Your task to perform on an android device: Do I have any events tomorrow? Image 0: 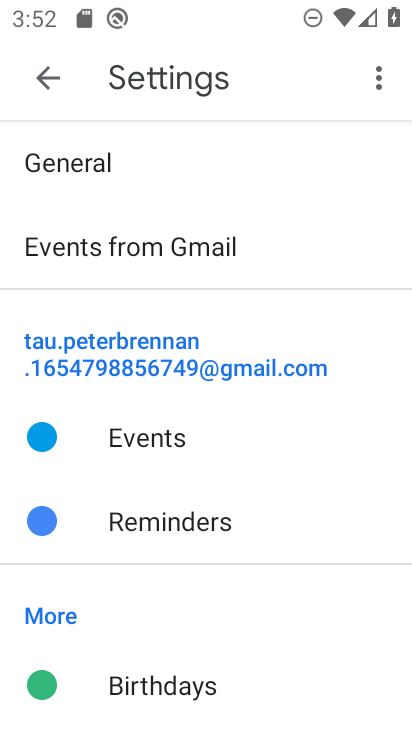
Step 0: press back button
Your task to perform on an android device: Do I have any events tomorrow? Image 1: 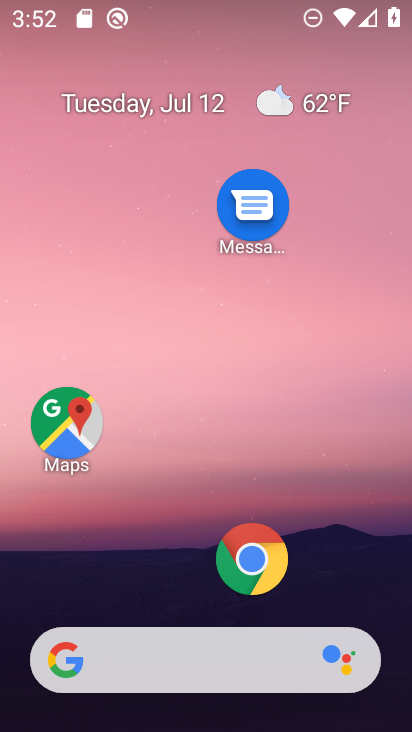
Step 1: drag from (155, 529) to (276, 11)
Your task to perform on an android device: Do I have any events tomorrow? Image 2: 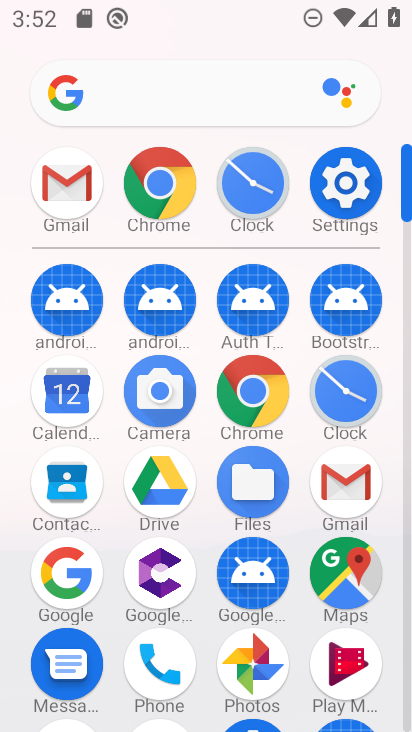
Step 2: click (42, 397)
Your task to perform on an android device: Do I have any events tomorrow? Image 3: 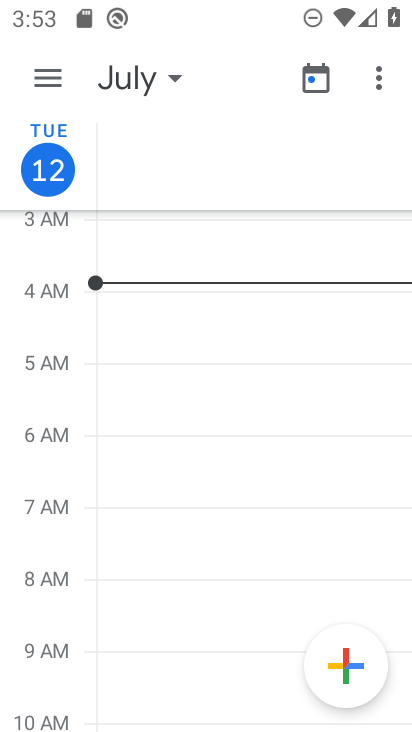
Step 3: click (47, 72)
Your task to perform on an android device: Do I have any events tomorrow? Image 4: 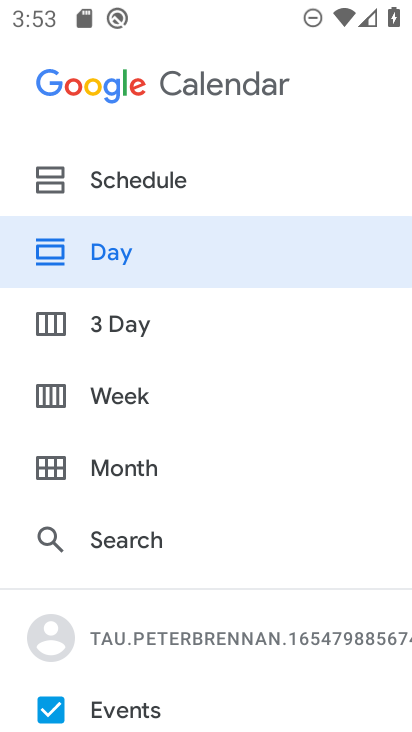
Step 4: click (112, 194)
Your task to perform on an android device: Do I have any events tomorrow? Image 5: 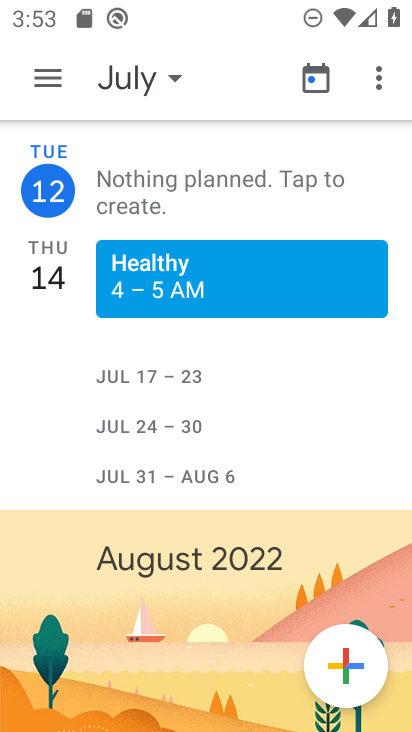
Step 5: task complete